Your task to perform on an android device: install app "Expedia: Hotels, Flights & Car" Image 0: 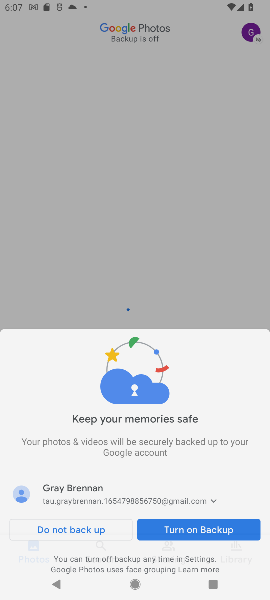
Step 0: press home button
Your task to perform on an android device: install app "Expedia: Hotels, Flights & Car" Image 1: 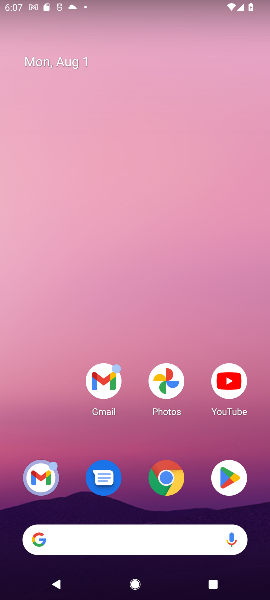
Step 1: click (239, 490)
Your task to perform on an android device: install app "Expedia: Hotels, Flights & Car" Image 2: 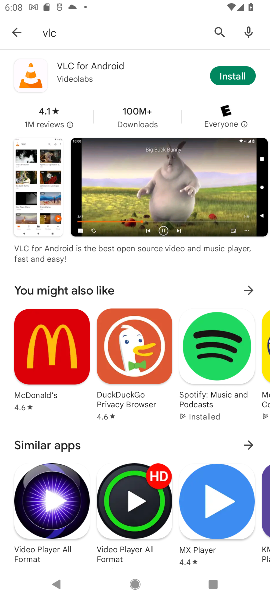
Step 2: click (217, 30)
Your task to perform on an android device: install app "Expedia: Hotels, Flights & Car" Image 3: 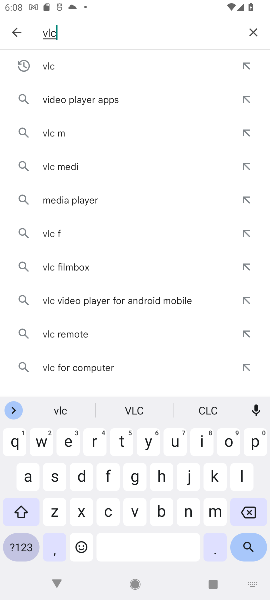
Step 3: click (251, 33)
Your task to perform on an android device: install app "Expedia: Hotels, Flights & Car" Image 4: 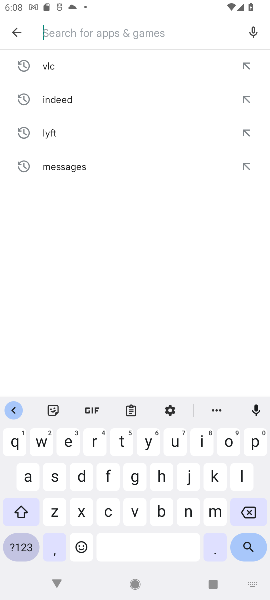
Step 4: click (69, 439)
Your task to perform on an android device: install app "Expedia: Hotels, Flights & Car" Image 5: 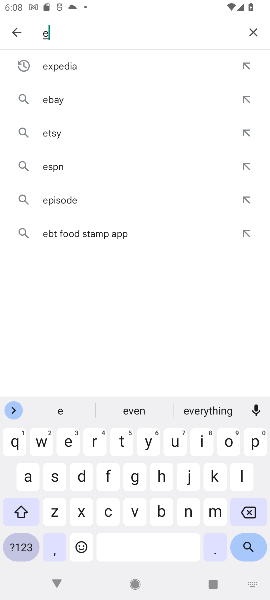
Step 5: click (84, 513)
Your task to perform on an android device: install app "Expedia: Hotels, Flights & Car" Image 6: 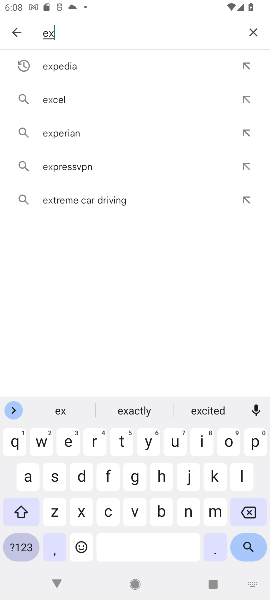
Step 6: click (73, 63)
Your task to perform on an android device: install app "Expedia: Hotels, Flights & Car" Image 7: 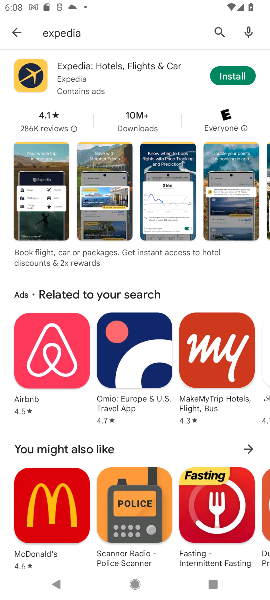
Step 7: click (233, 79)
Your task to perform on an android device: install app "Expedia: Hotels, Flights & Car" Image 8: 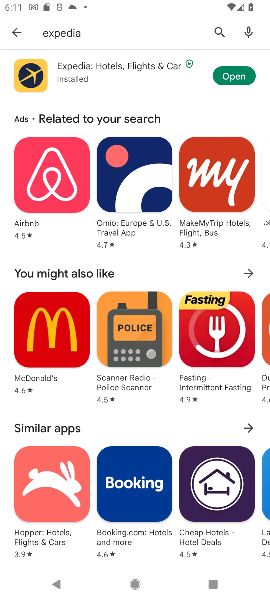
Step 8: task complete